Your task to perform on an android device: Open notification settings Image 0: 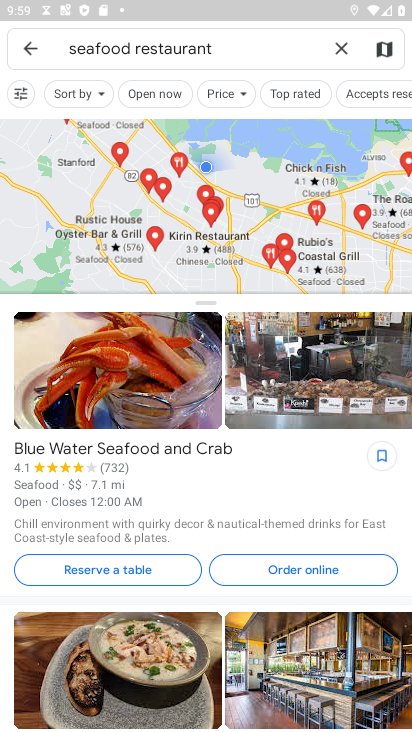
Step 0: press home button
Your task to perform on an android device: Open notification settings Image 1: 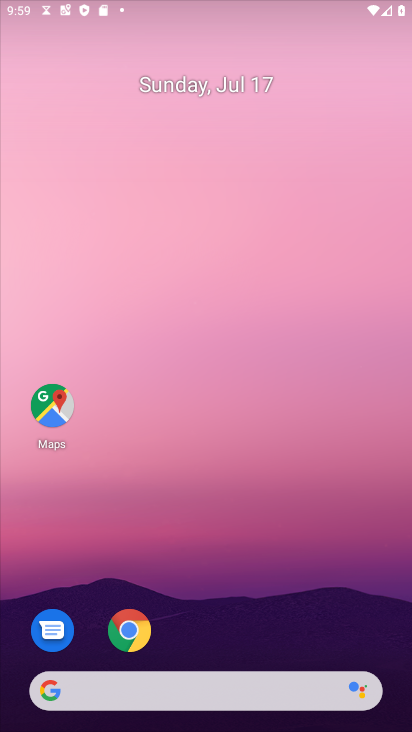
Step 1: drag from (199, 693) to (207, 13)
Your task to perform on an android device: Open notification settings Image 2: 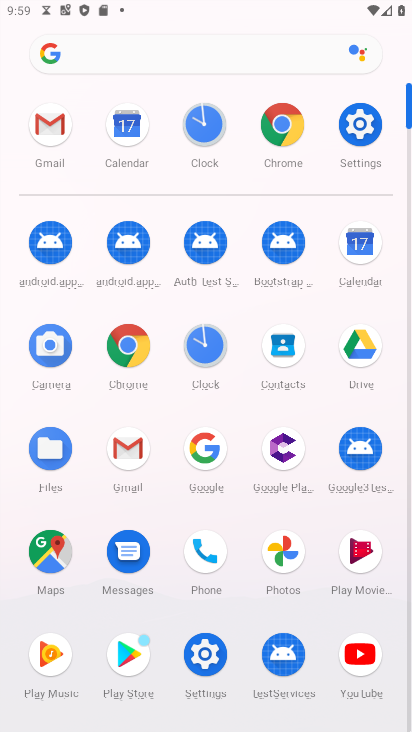
Step 2: click (349, 116)
Your task to perform on an android device: Open notification settings Image 3: 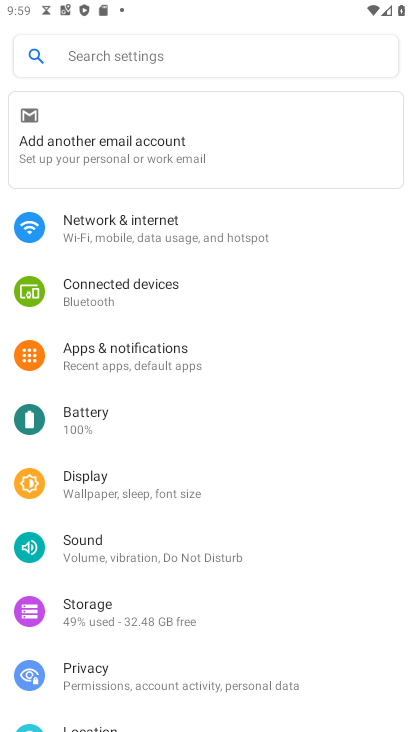
Step 3: click (154, 342)
Your task to perform on an android device: Open notification settings Image 4: 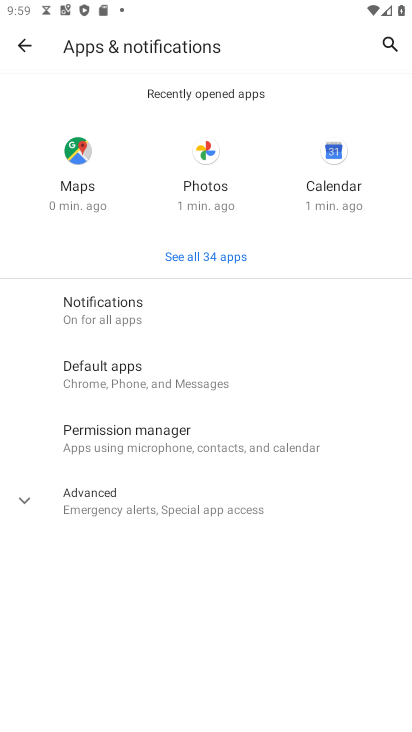
Step 4: task complete